Your task to perform on an android device: open app "Fetch Rewards" (install if not already installed) and enter user name: "Westwood@yahoo.com" and password: "qualifying" Image 0: 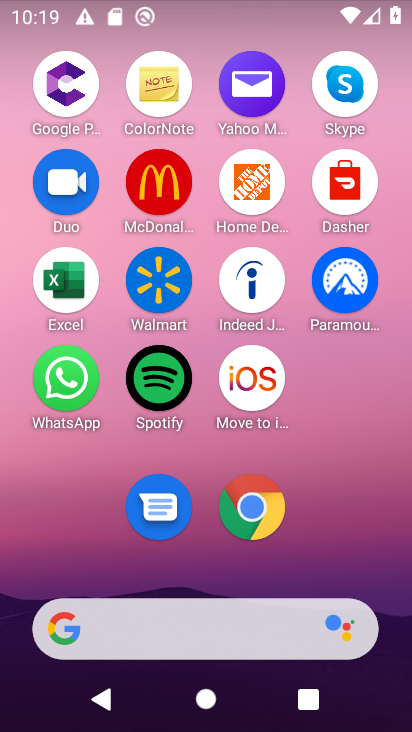
Step 0: drag from (387, 630) to (375, 122)
Your task to perform on an android device: open app "Fetch Rewards" (install if not already installed) and enter user name: "Westwood@yahoo.com" and password: "qualifying" Image 1: 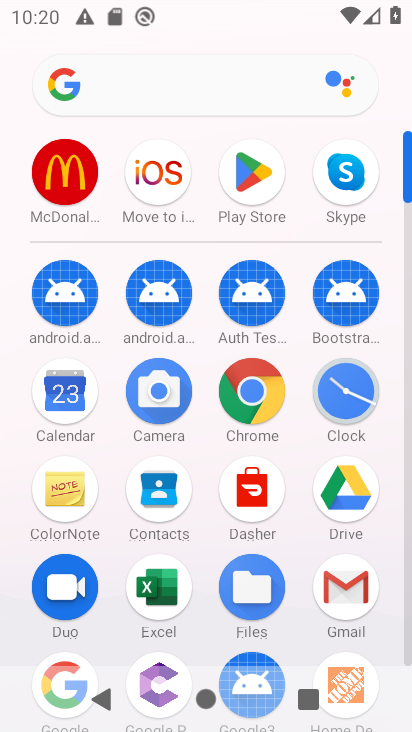
Step 1: click (405, 638)
Your task to perform on an android device: open app "Fetch Rewards" (install if not already installed) and enter user name: "Westwood@yahoo.com" and password: "qualifying" Image 2: 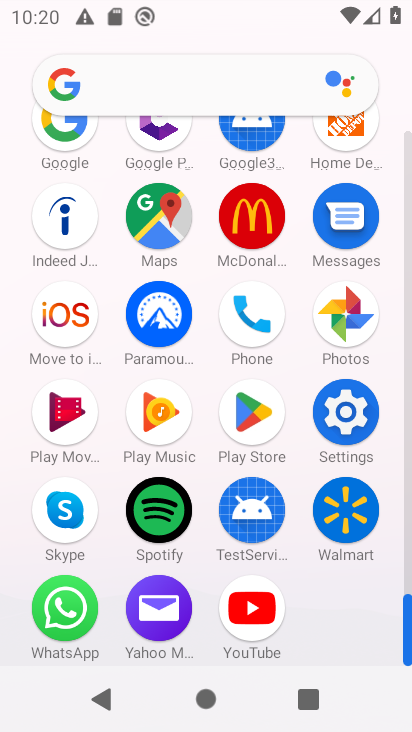
Step 2: click (252, 414)
Your task to perform on an android device: open app "Fetch Rewards" (install if not already installed) and enter user name: "Westwood@yahoo.com" and password: "qualifying" Image 3: 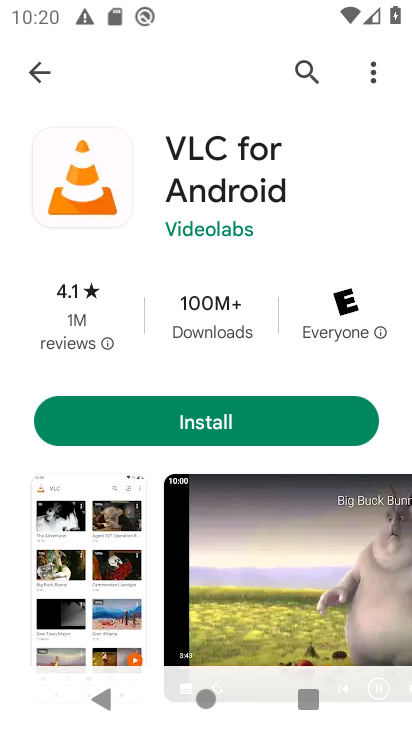
Step 3: click (309, 70)
Your task to perform on an android device: open app "Fetch Rewards" (install if not already installed) and enter user name: "Westwood@yahoo.com" and password: "qualifying" Image 4: 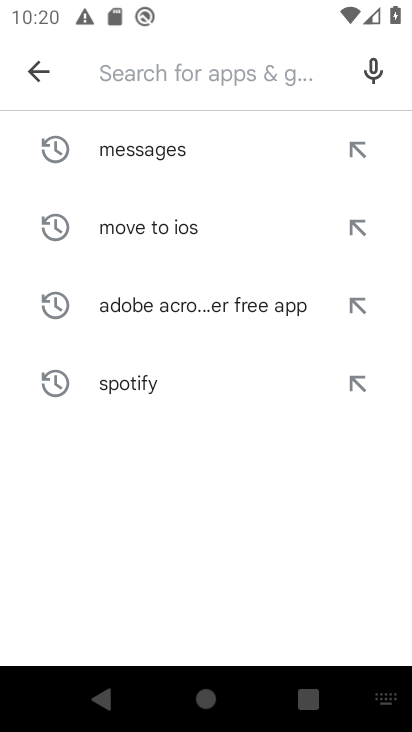
Step 4: type "Fetch Rewards"
Your task to perform on an android device: open app "Fetch Rewards" (install if not already installed) and enter user name: "Westwood@yahoo.com" and password: "qualifying" Image 5: 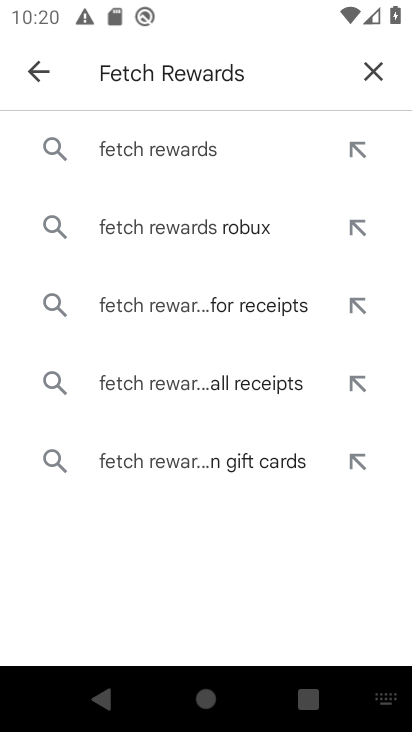
Step 5: click (167, 144)
Your task to perform on an android device: open app "Fetch Rewards" (install if not already installed) and enter user name: "Westwood@yahoo.com" and password: "qualifying" Image 6: 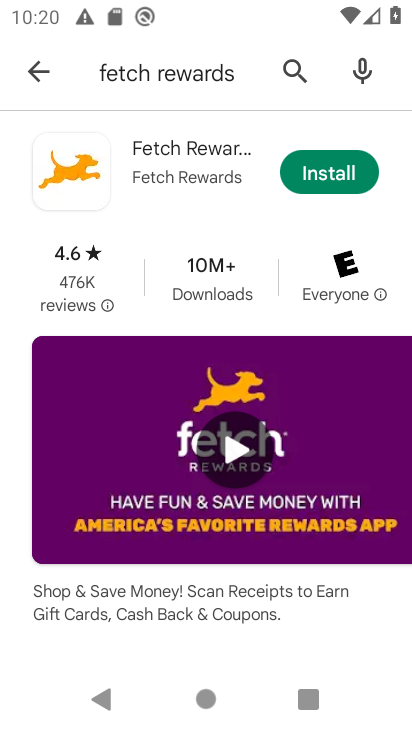
Step 6: click (329, 170)
Your task to perform on an android device: open app "Fetch Rewards" (install if not already installed) and enter user name: "Westwood@yahoo.com" and password: "qualifying" Image 7: 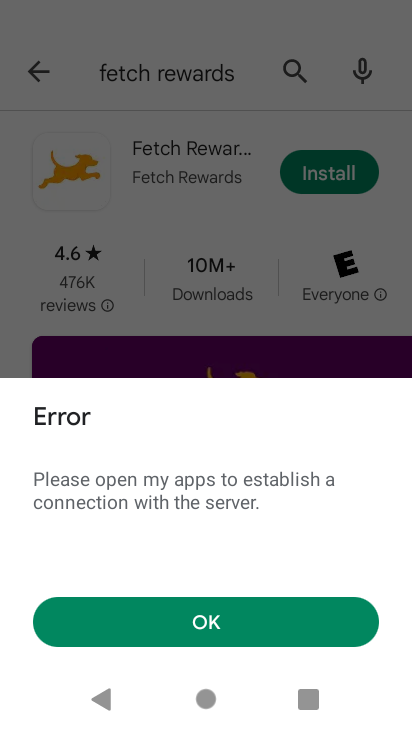
Step 7: click (206, 621)
Your task to perform on an android device: open app "Fetch Rewards" (install if not already installed) and enter user name: "Westwood@yahoo.com" and password: "qualifying" Image 8: 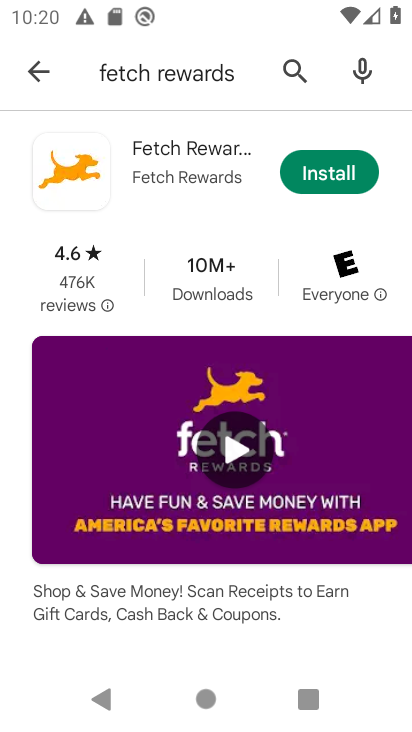
Step 8: click (336, 165)
Your task to perform on an android device: open app "Fetch Rewards" (install if not already installed) and enter user name: "Westwood@yahoo.com" and password: "qualifying" Image 9: 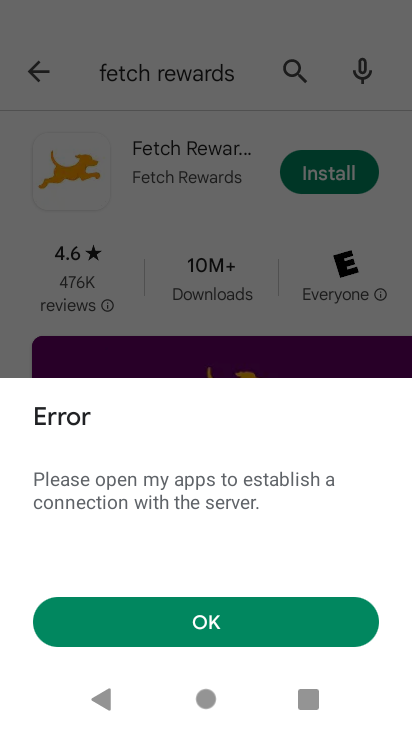
Step 9: click (199, 619)
Your task to perform on an android device: open app "Fetch Rewards" (install if not already installed) and enter user name: "Westwood@yahoo.com" and password: "qualifying" Image 10: 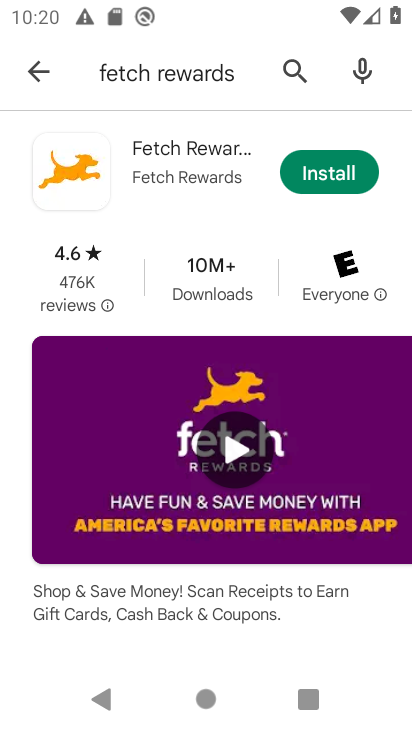
Step 10: click (333, 172)
Your task to perform on an android device: open app "Fetch Rewards" (install if not already installed) and enter user name: "Westwood@yahoo.com" and password: "qualifying" Image 11: 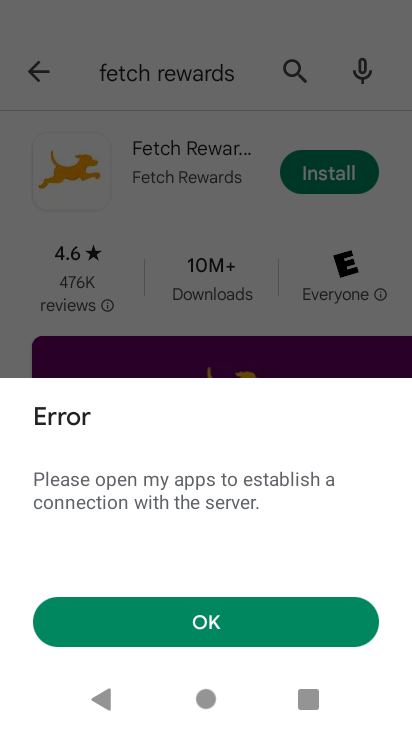
Step 11: click (210, 620)
Your task to perform on an android device: open app "Fetch Rewards" (install if not already installed) and enter user name: "Westwood@yahoo.com" and password: "qualifying" Image 12: 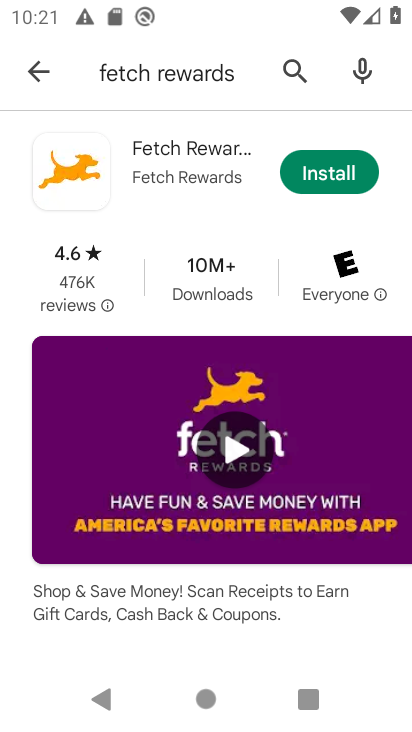
Step 12: task complete